Your task to perform on an android device: see sites visited before in the chrome app Image 0: 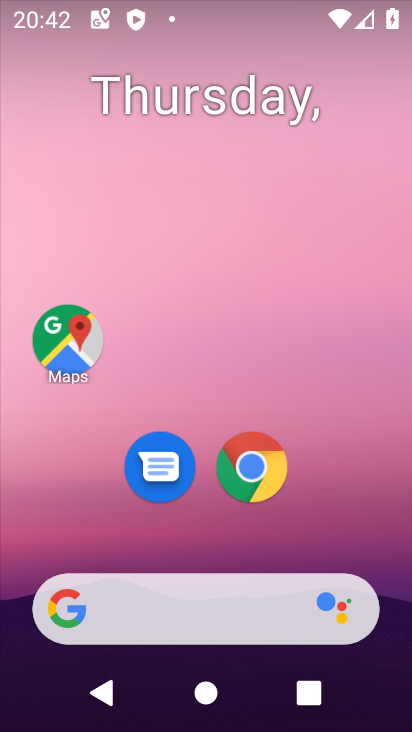
Step 0: drag from (308, 563) to (326, 247)
Your task to perform on an android device: see sites visited before in the chrome app Image 1: 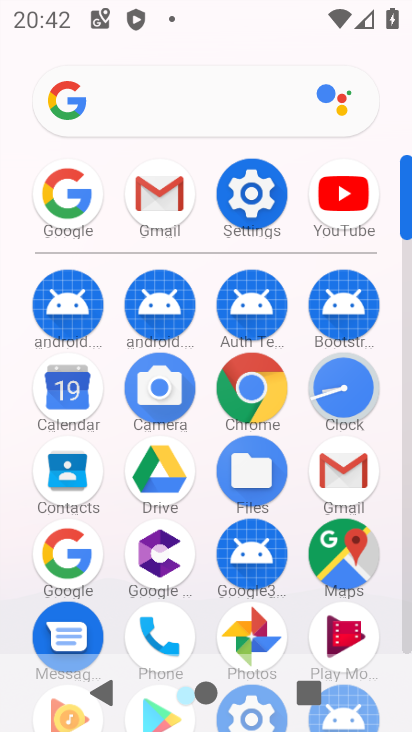
Step 1: click (229, 390)
Your task to perform on an android device: see sites visited before in the chrome app Image 2: 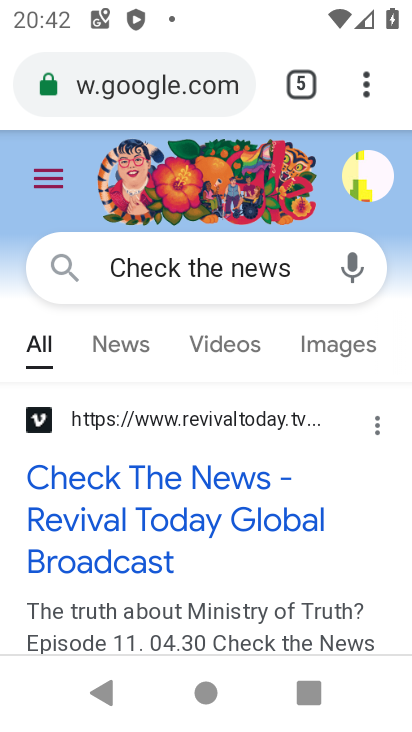
Step 2: click (375, 74)
Your task to perform on an android device: see sites visited before in the chrome app Image 3: 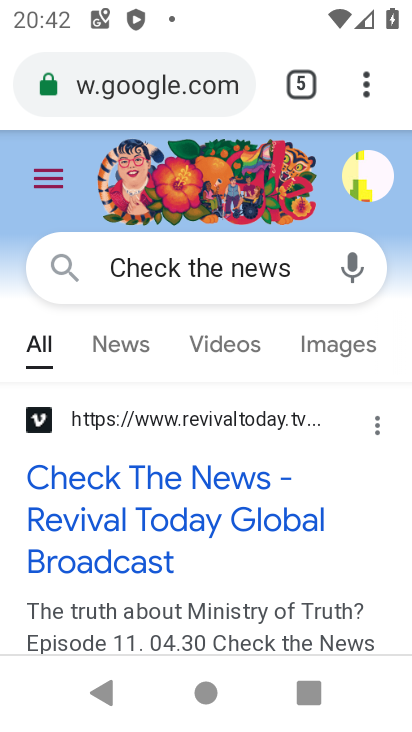
Step 3: click (360, 75)
Your task to perform on an android device: see sites visited before in the chrome app Image 4: 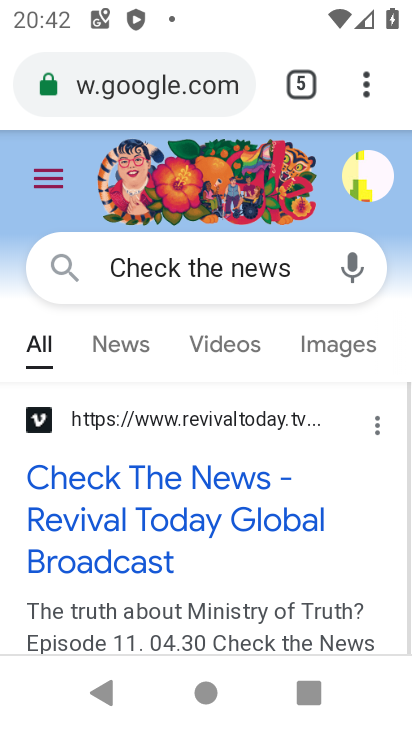
Step 4: click (365, 91)
Your task to perform on an android device: see sites visited before in the chrome app Image 5: 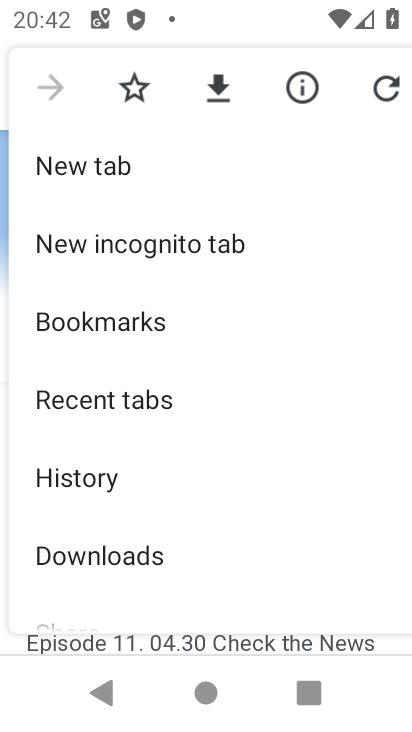
Step 5: drag from (134, 523) to (216, 262)
Your task to perform on an android device: see sites visited before in the chrome app Image 6: 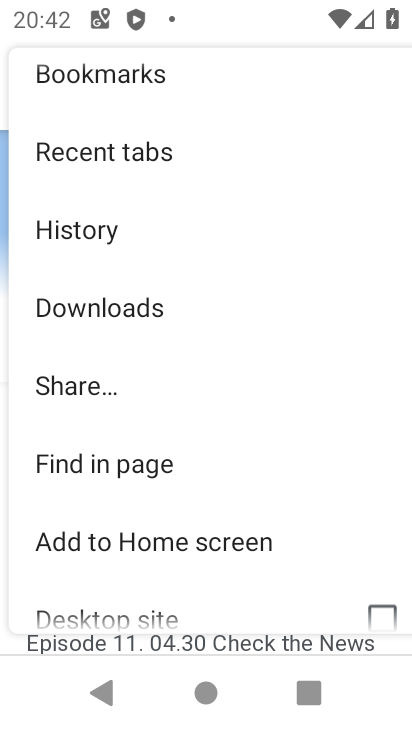
Step 6: click (130, 232)
Your task to perform on an android device: see sites visited before in the chrome app Image 7: 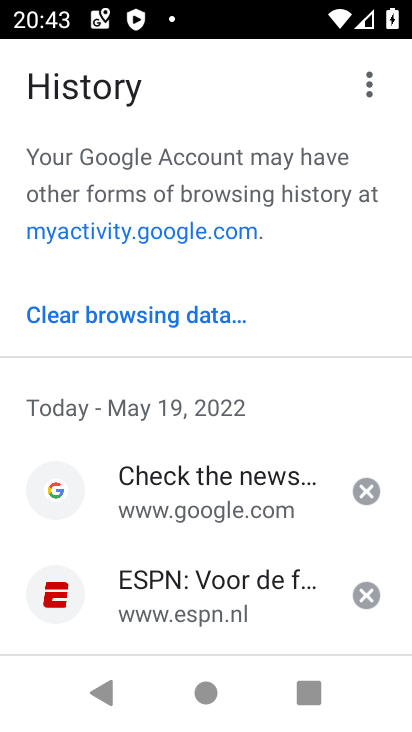
Step 7: task complete